Your task to perform on an android device: Open the calendar and show me this week's events Image 0: 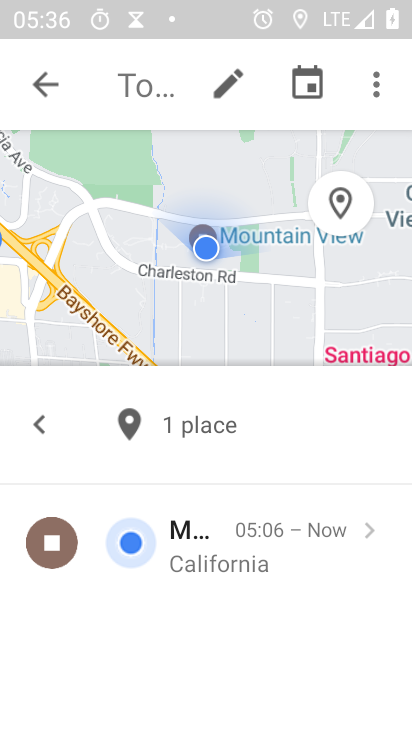
Step 0: press home button
Your task to perform on an android device: Open the calendar and show me this week's events Image 1: 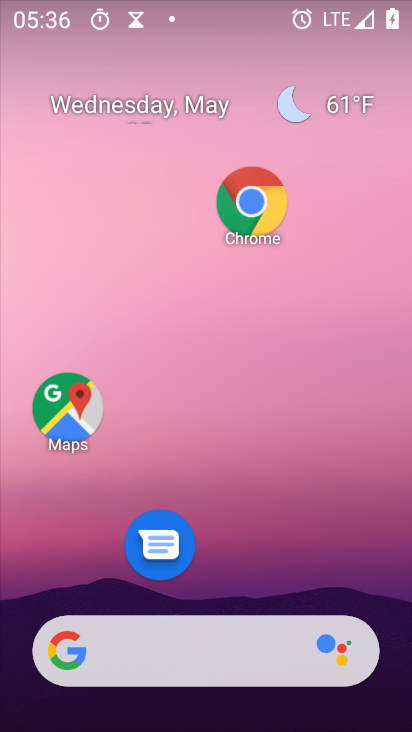
Step 1: drag from (209, 596) to (191, 319)
Your task to perform on an android device: Open the calendar and show me this week's events Image 2: 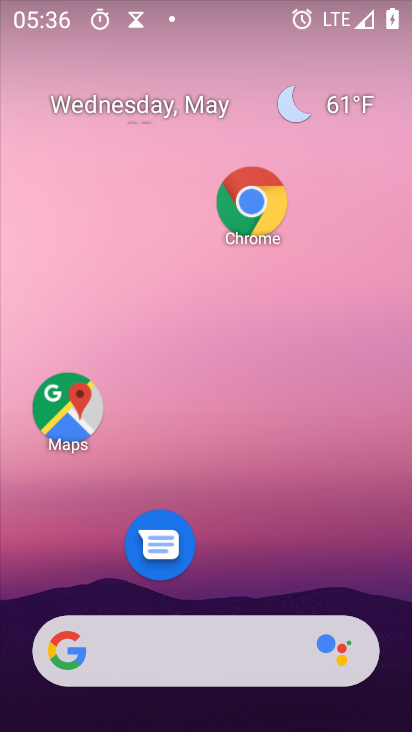
Step 2: drag from (238, 612) to (209, 247)
Your task to perform on an android device: Open the calendar and show me this week's events Image 3: 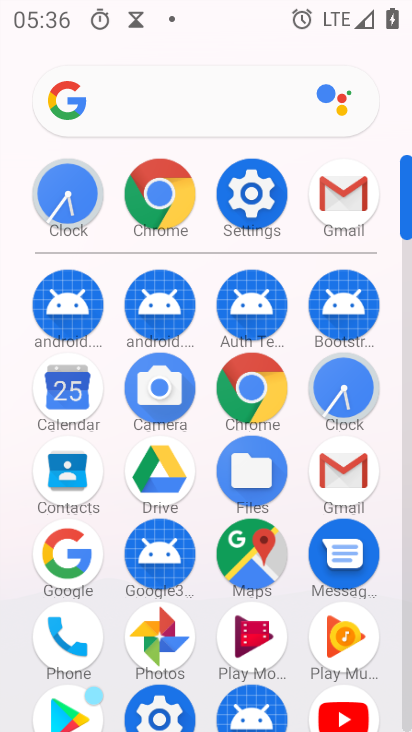
Step 3: click (81, 400)
Your task to perform on an android device: Open the calendar and show me this week's events Image 4: 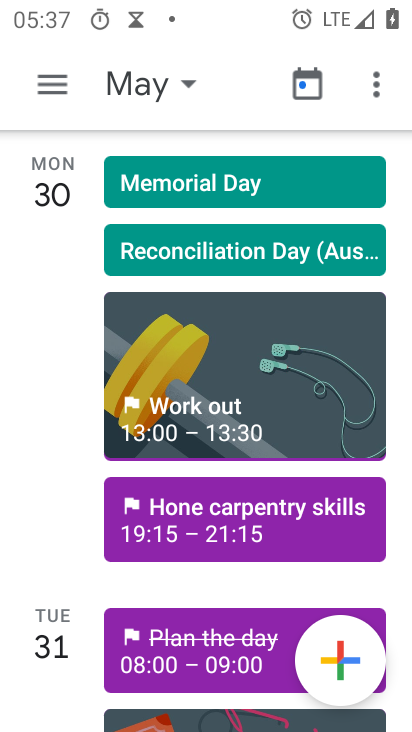
Step 4: click (219, 183)
Your task to perform on an android device: Open the calendar and show me this week's events Image 5: 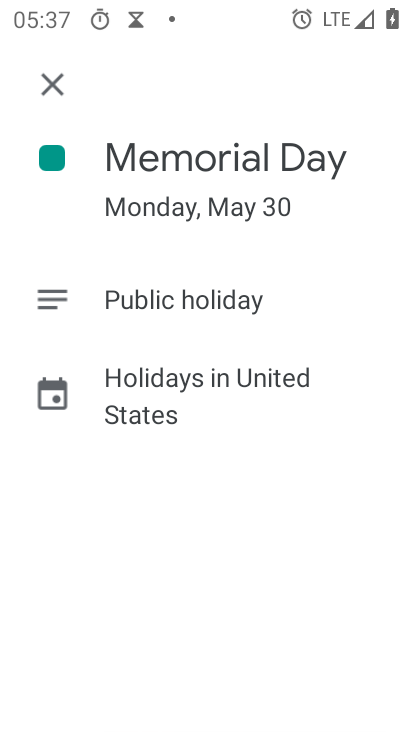
Step 5: task complete